Your task to perform on an android device: turn vacation reply on in the gmail app Image 0: 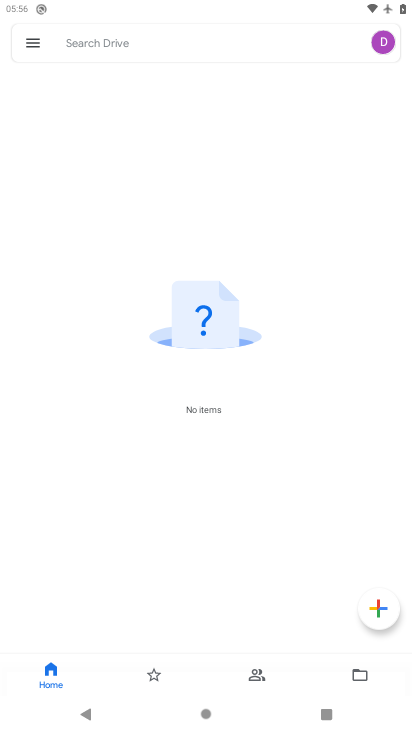
Step 0: press home button
Your task to perform on an android device: turn vacation reply on in the gmail app Image 1: 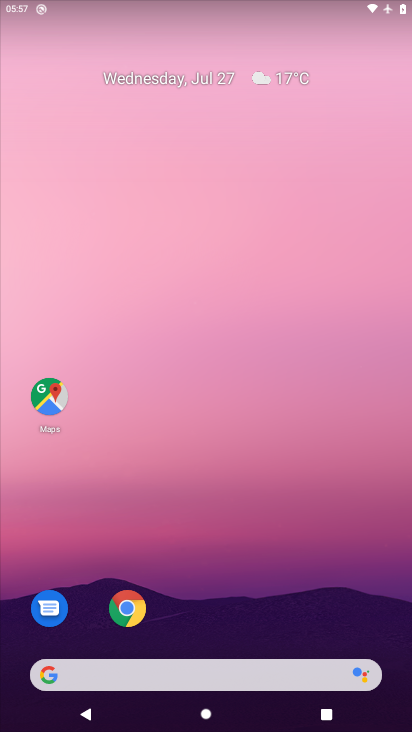
Step 1: click (235, 632)
Your task to perform on an android device: turn vacation reply on in the gmail app Image 2: 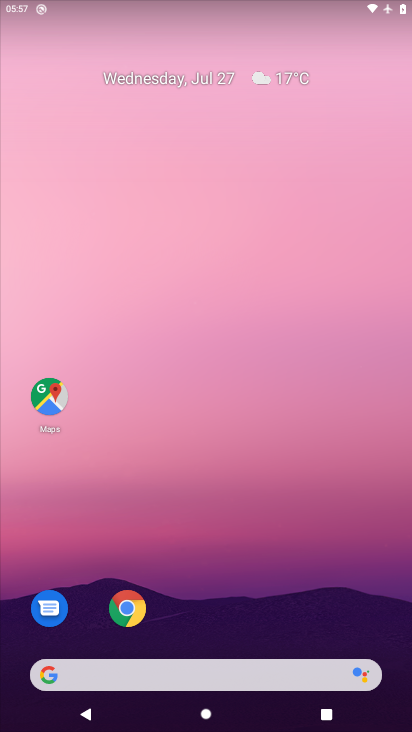
Step 2: drag from (221, 616) to (275, 102)
Your task to perform on an android device: turn vacation reply on in the gmail app Image 3: 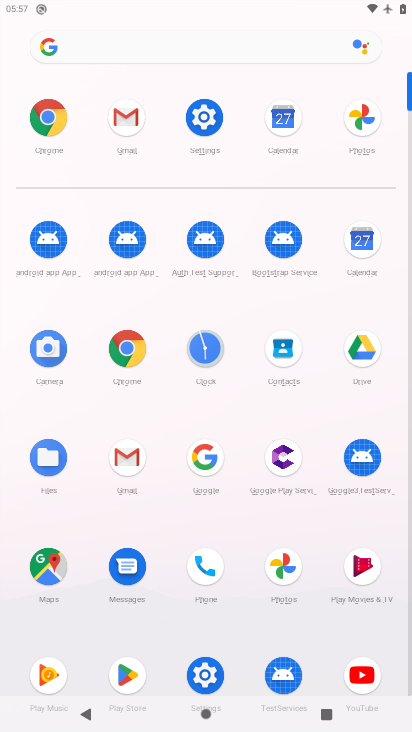
Step 3: click (124, 119)
Your task to perform on an android device: turn vacation reply on in the gmail app Image 4: 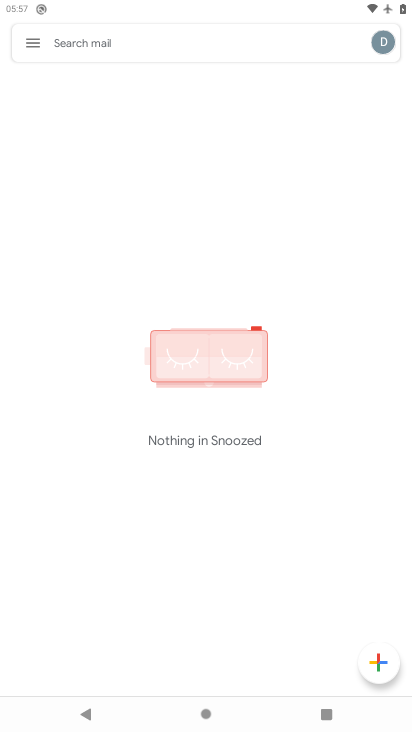
Step 4: click (30, 47)
Your task to perform on an android device: turn vacation reply on in the gmail app Image 5: 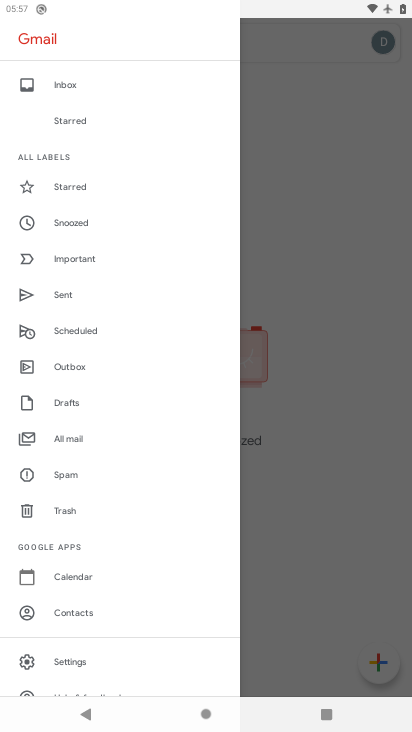
Step 5: click (68, 667)
Your task to perform on an android device: turn vacation reply on in the gmail app Image 6: 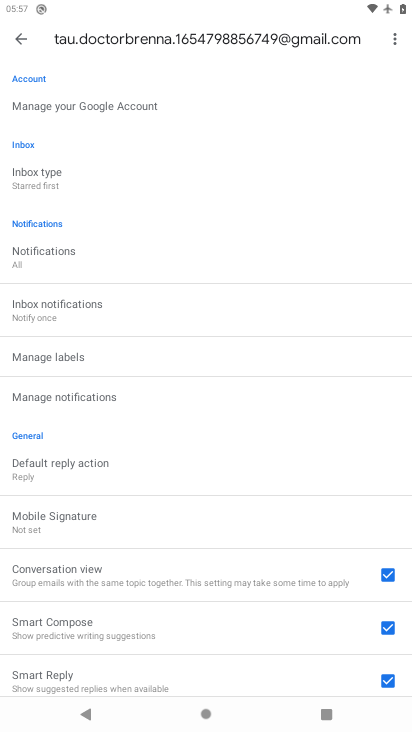
Step 6: drag from (250, 474) to (118, 40)
Your task to perform on an android device: turn vacation reply on in the gmail app Image 7: 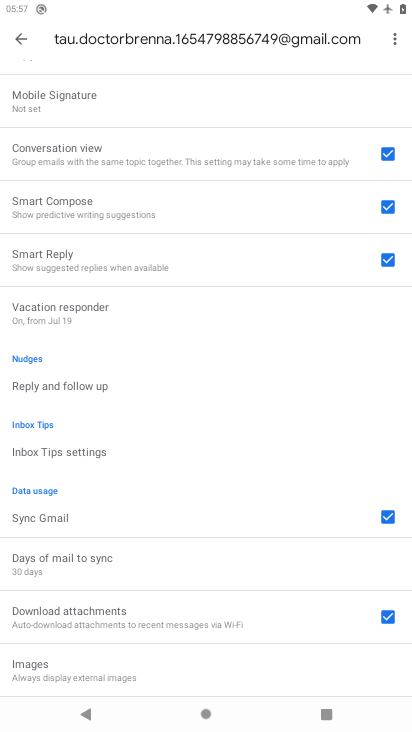
Step 7: click (58, 312)
Your task to perform on an android device: turn vacation reply on in the gmail app Image 8: 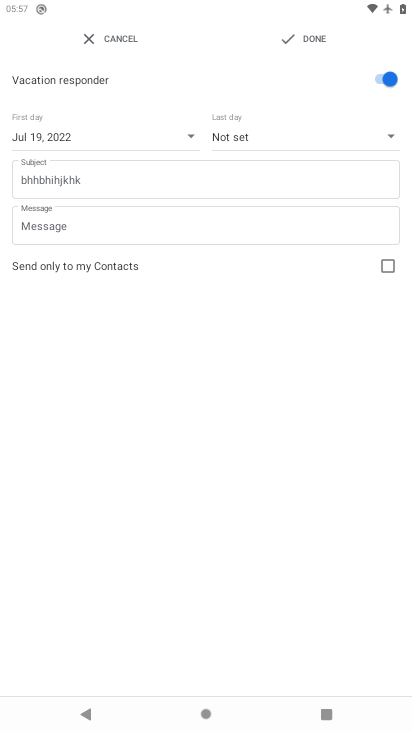
Step 8: task complete